Your task to perform on an android device: Open internet settings Image 0: 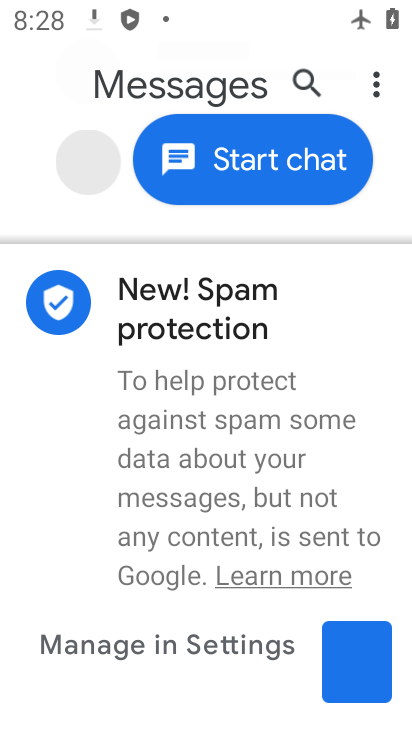
Step 0: press home button
Your task to perform on an android device: Open internet settings Image 1: 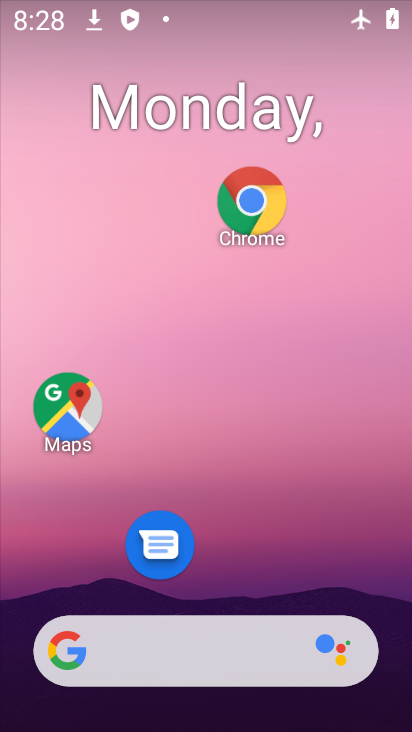
Step 1: drag from (232, 570) to (197, 154)
Your task to perform on an android device: Open internet settings Image 2: 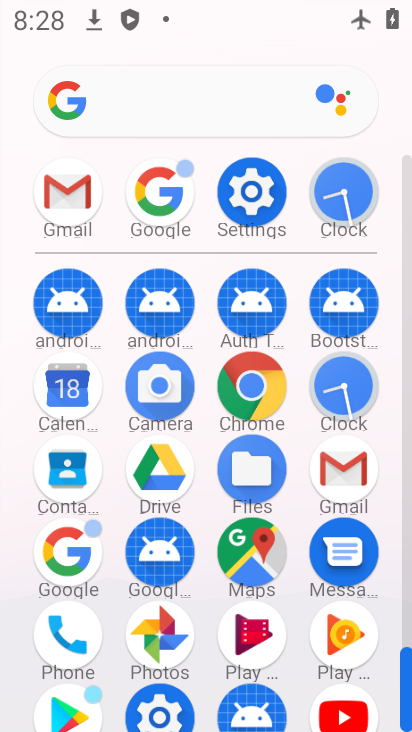
Step 2: click (261, 201)
Your task to perform on an android device: Open internet settings Image 3: 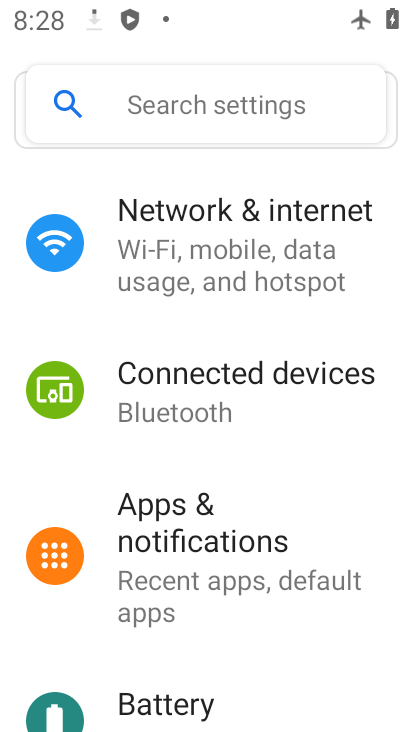
Step 3: click (188, 210)
Your task to perform on an android device: Open internet settings Image 4: 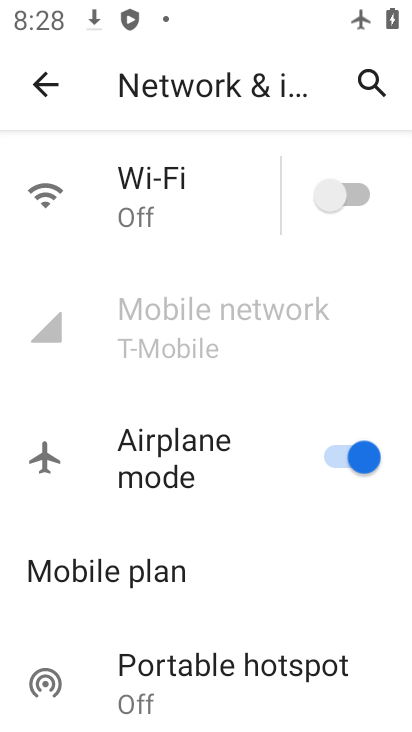
Step 4: drag from (246, 589) to (229, 184)
Your task to perform on an android device: Open internet settings Image 5: 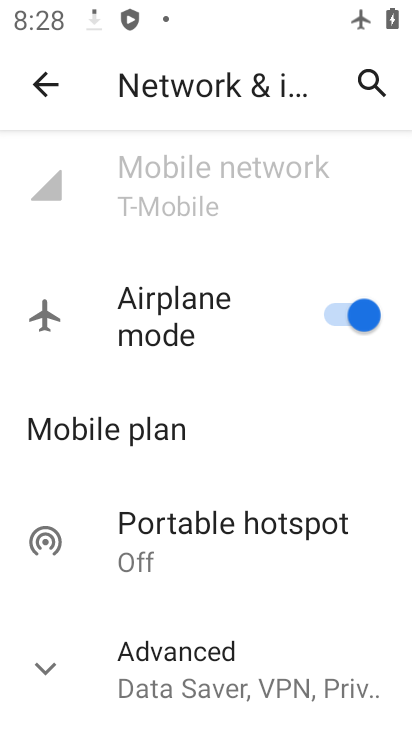
Step 5: drag from (233, 569) to (214, 218)
Your task to perform on an android device: Open internet settings Image 6: 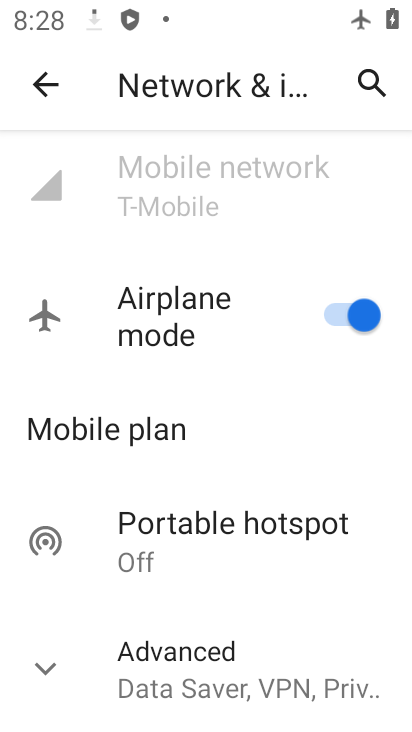
Step 6: drag from (261, 607) to (261, 270)
Your task to perform on an android device: Open internet settings Image 7: 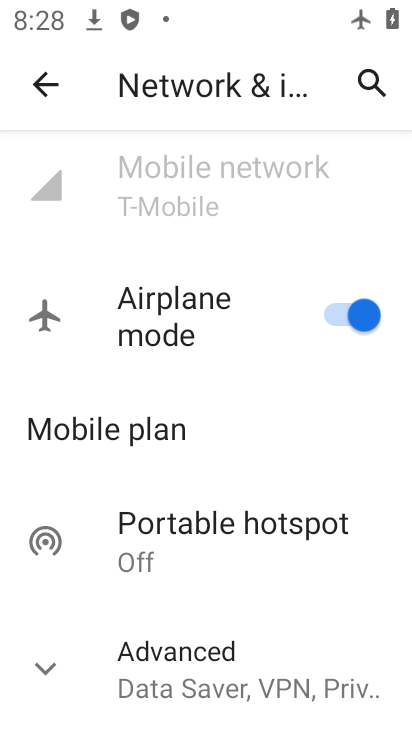
Step 7: click (66, 667)
Your task to perform on an android device: Open internet settings Image 8: 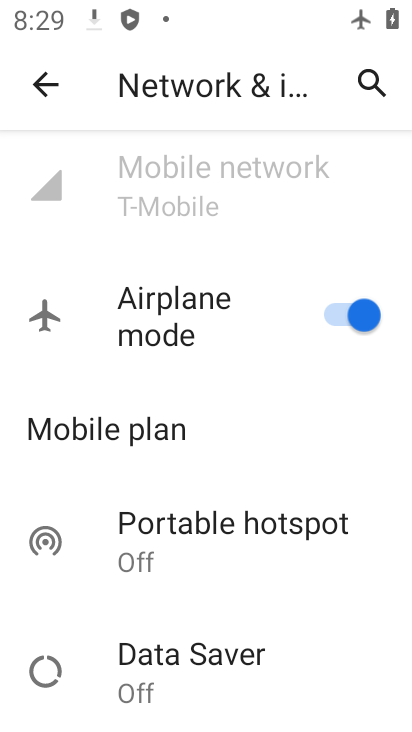
Step 8: task complete